Your task to perform on an android device: toggle wifi Image 0: 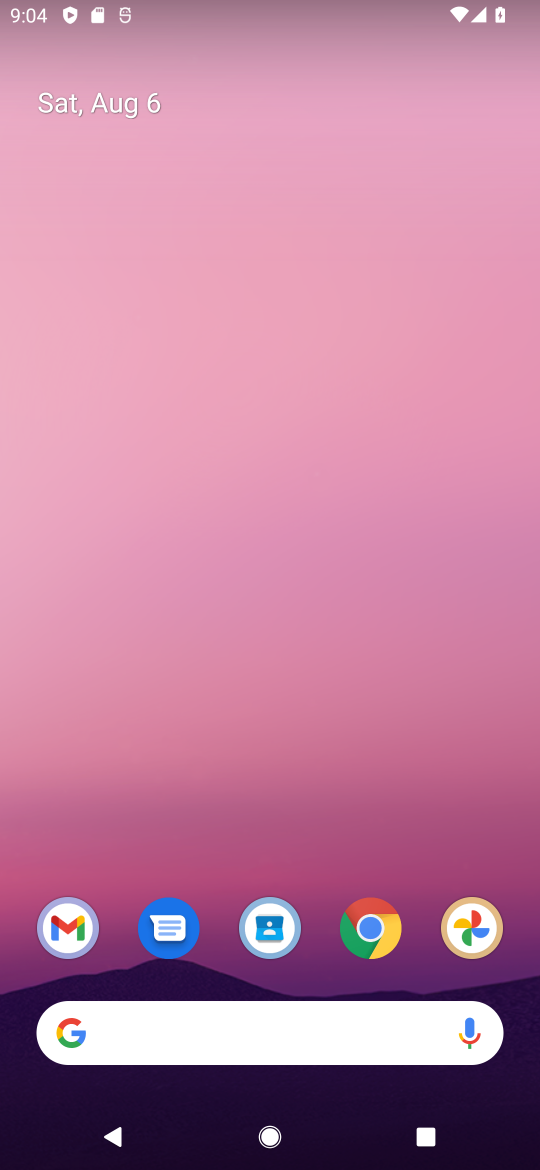
Step 0: drag from (265, 811) to (252, 76)
Your task to perform on an android device: toggle wifi Image 1: 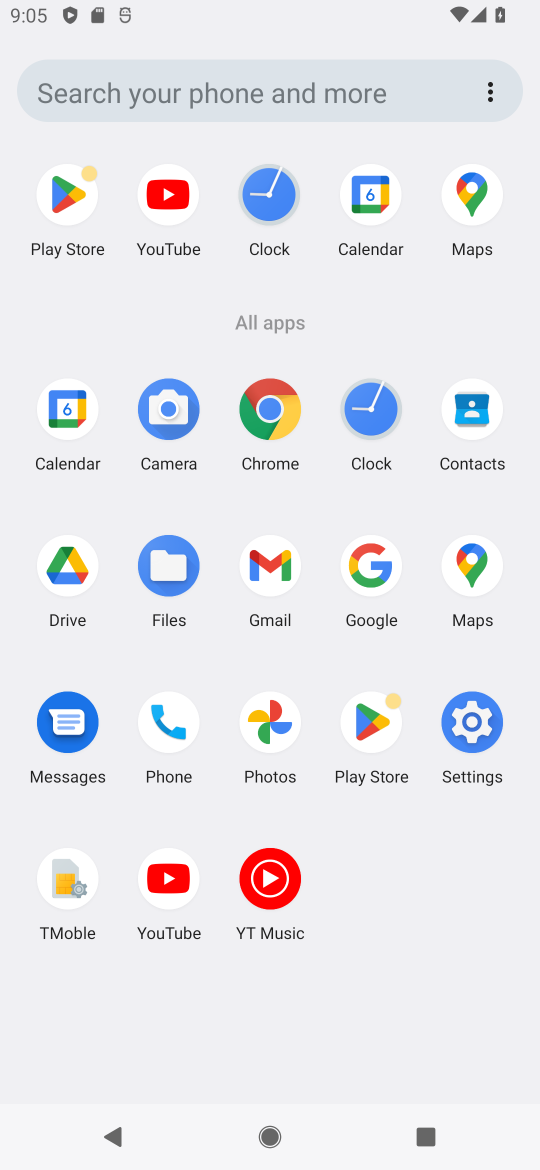
Step 1: click (467, 715)
Your task to perform on an android device: toggle wifi Image 2: 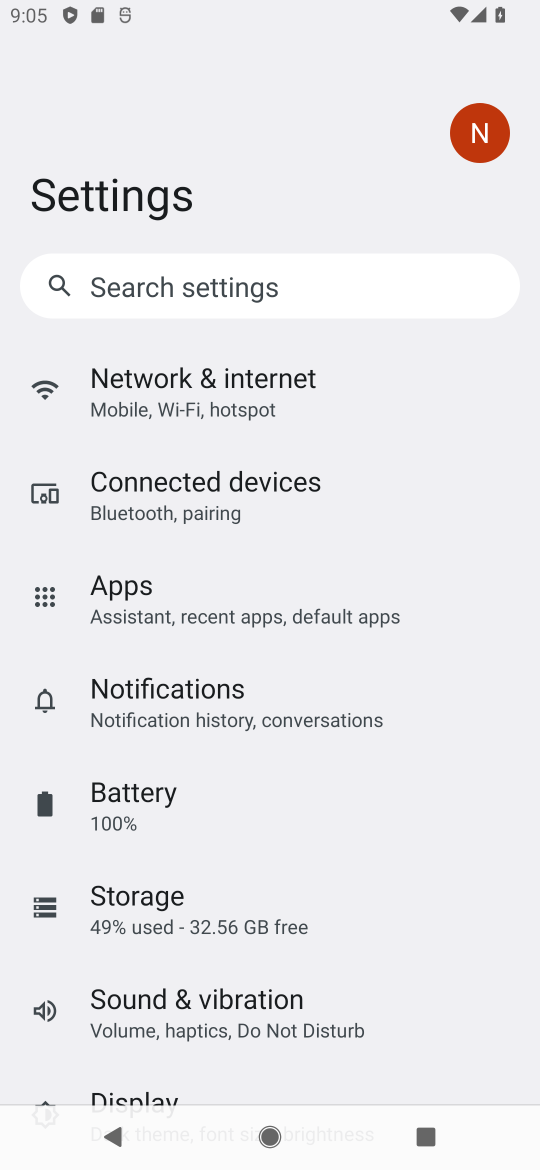
Step 2: click (206, 379)
Your task to perform on an android device: toggle wifi Image 3: 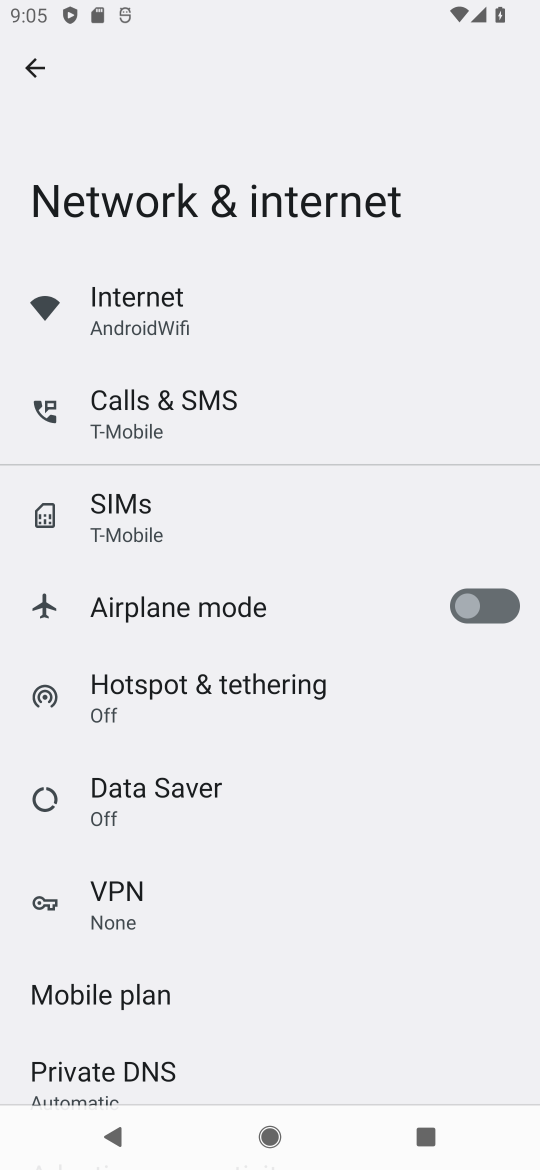
Step 3: click (128, 290)
Your task to perform on an android device: toggle wifi Image 4: 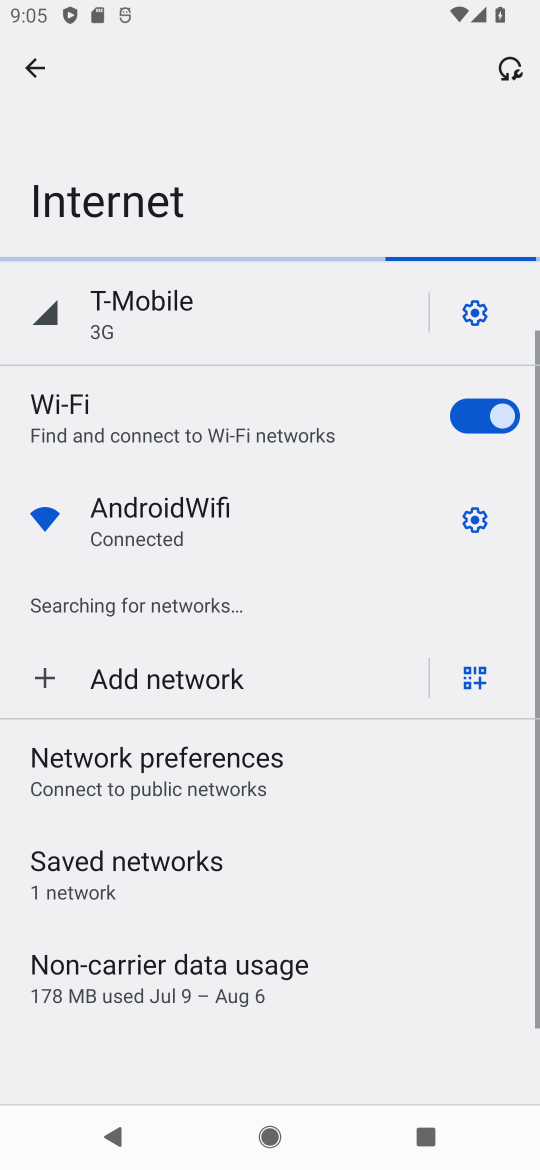
Step 4: click (487, 418)
Your task to perform on an android device: toggle wifi Image 5: 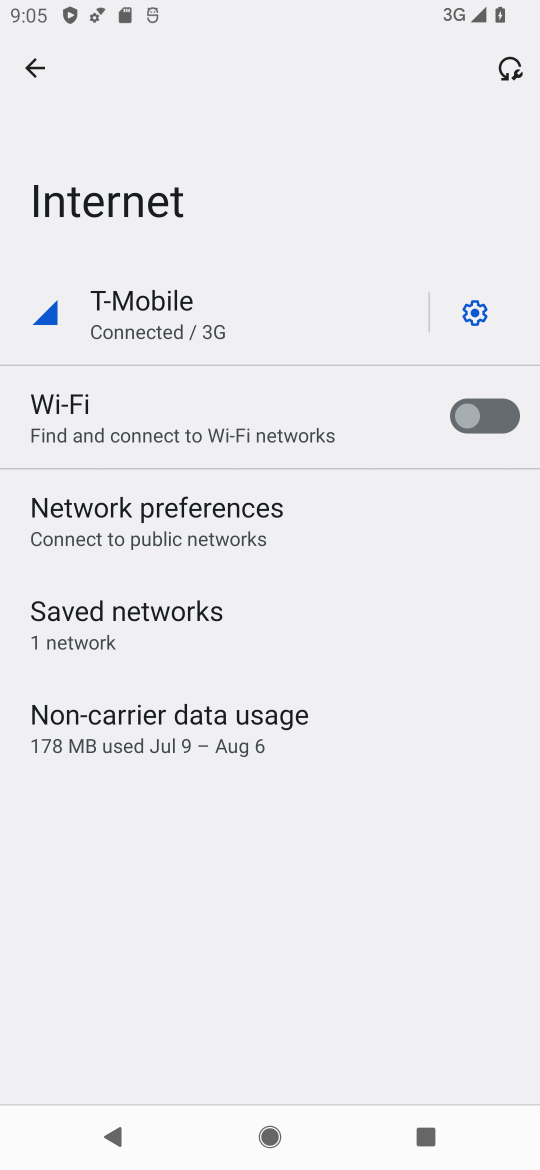
Step 5: task complete